Your task to perform on an android device: see tabs open on other devices in the chrome app Image 0: 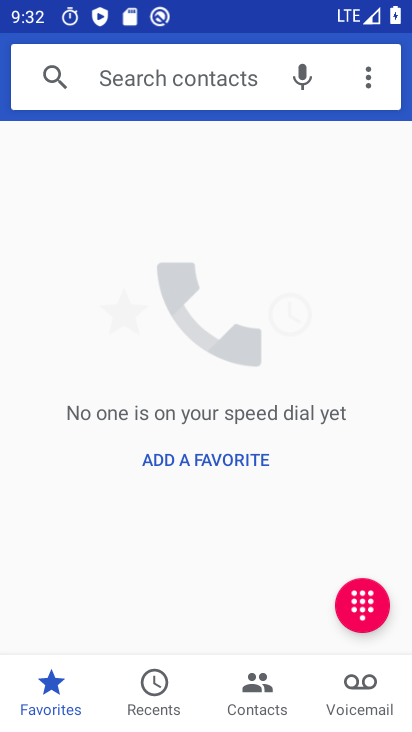
Step 0: press home button
Your task to perform on an android device: see tabs open on other devices in the chrome app Image 1: 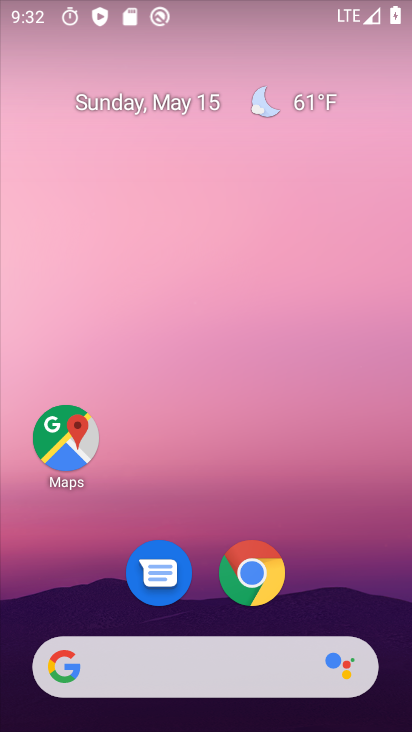
Step 1: click (245, 577)
Your task to perform on an android device: see tabs open on other devices in the chrome app Image 2: 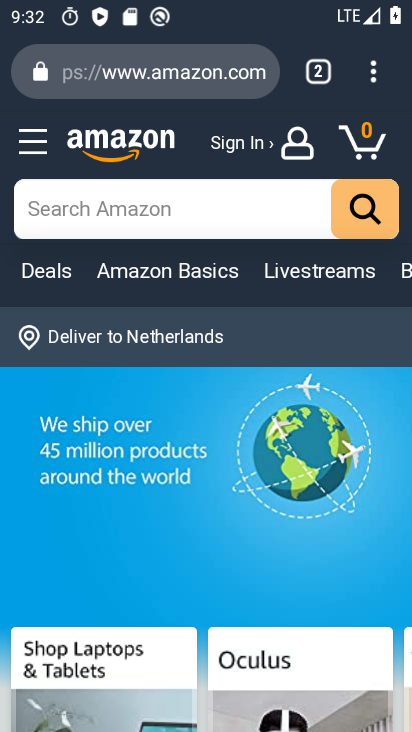
Step 2: click (300, 67)
Your task to perform on an android device: see tabs open on other devices in the chrome app Image 3: 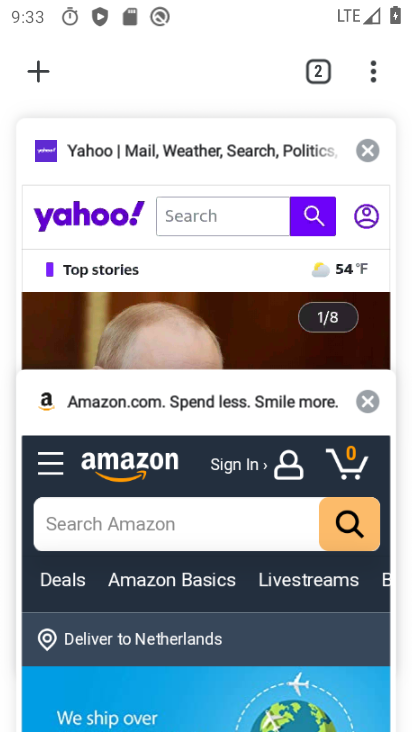
Step 3: task complete